Your task to perform on an android device: Open Youtube and go to the subscriptions tab Image 0: 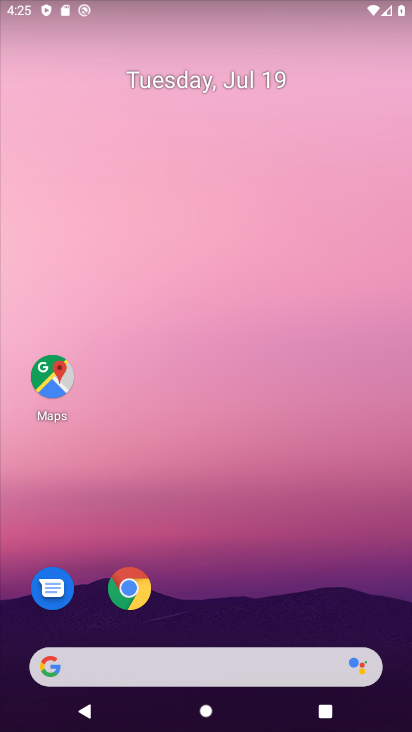
Step 0: drag from (242, 589) to (267, 380)
Your task to perform on an android device: Open Youtube and go to the subscriptions tab Image 1: 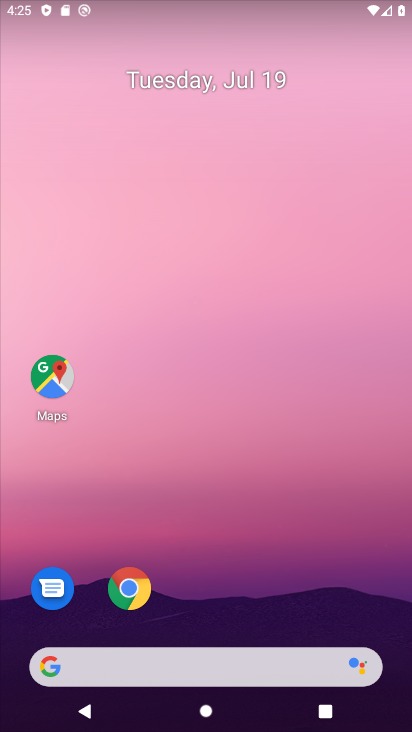
Step 1: drag from (235, 635) to (284, 272)
Your task to perform on an android device: Open Youtube and go to the subscriptions tab Image 2: 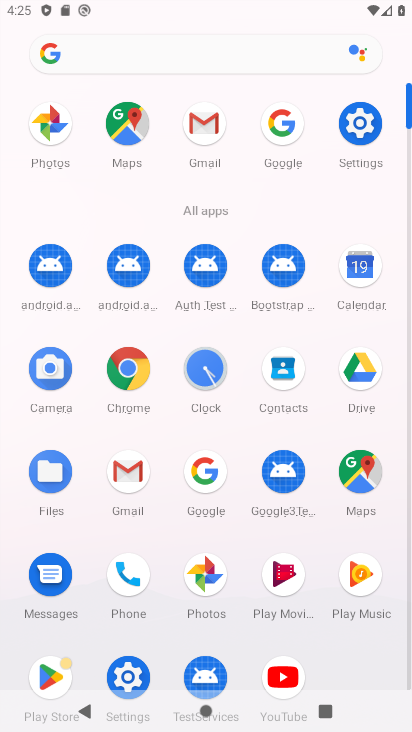
Step 2: click (277, 689)
Your task to perform on an android device: Open Youtube and go to the subscriptions tab Image 3: 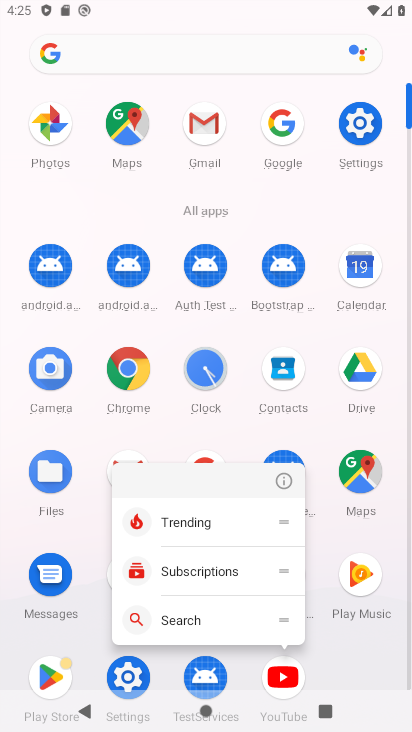
Step 3: click (279, 679)
Your task to perform on an android device: Open Youtube and go to the subscriptions tab Image 4: 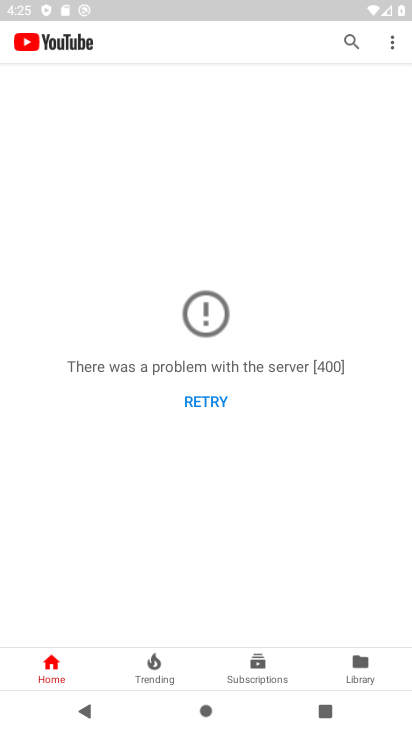
Step 4: click (272, 678)
Your task to perform on an android device: Open Youtube and go to the subscriptions tab Image 5: 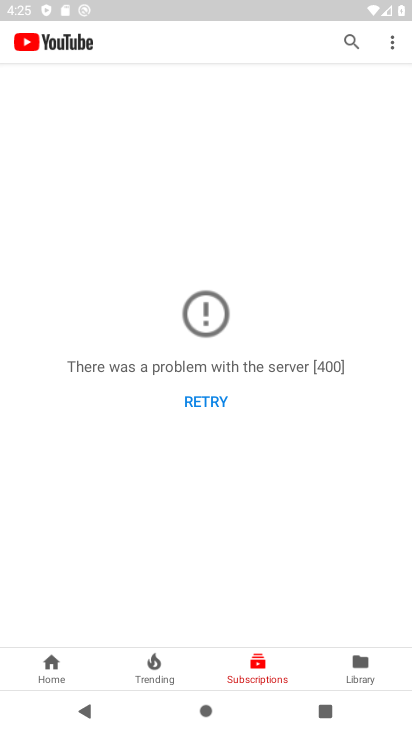
Step 5: task complete